Your task to perform on an android device: Turn off the flashlight Image 0: 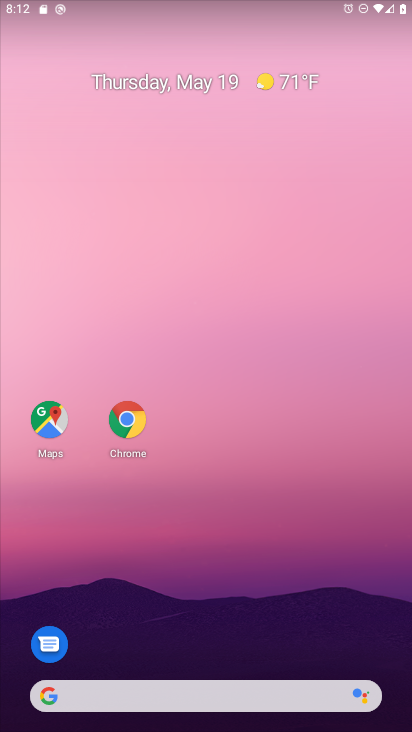
Step 0: drag from (244, 4) to (300, 547)
Your task to perform on an android device: Turn off the flashlight Image 1: 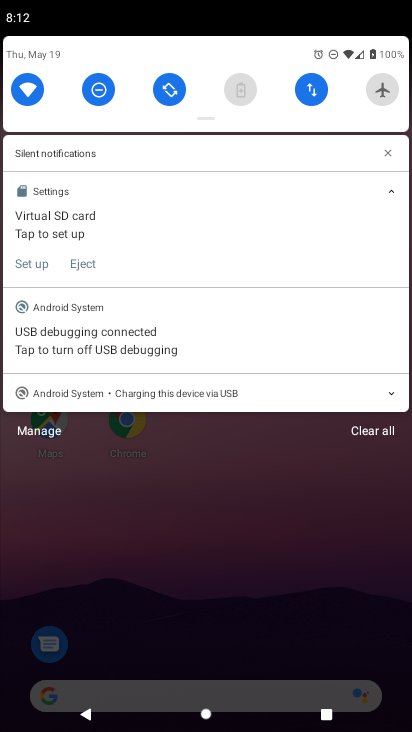
Step 1: drag from (186, 94) to (188, 592)
Your task to perform on an android device: Turn off the flashlight Image 2: 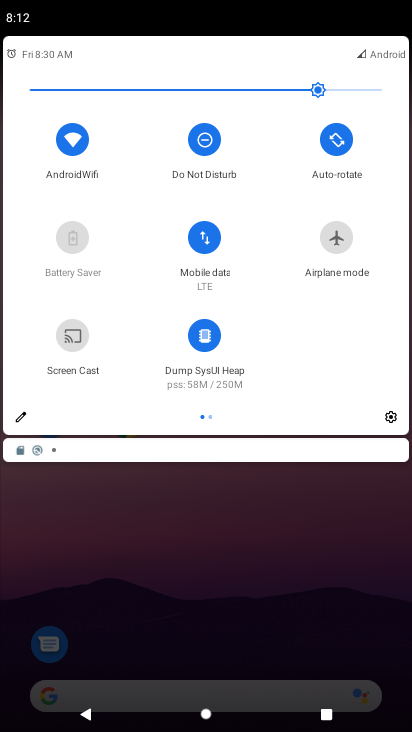
Step 2: drag from (309, 379) to (0, 429)
Your task to perform on an android device: Turn off the flashlight Image 3: 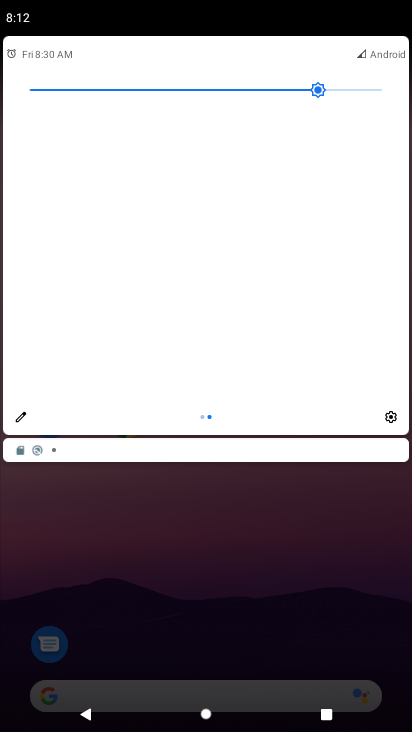
Step 3: click (16, 417)
Your task to perform on an android device: Turn off the flashlight Image 4: 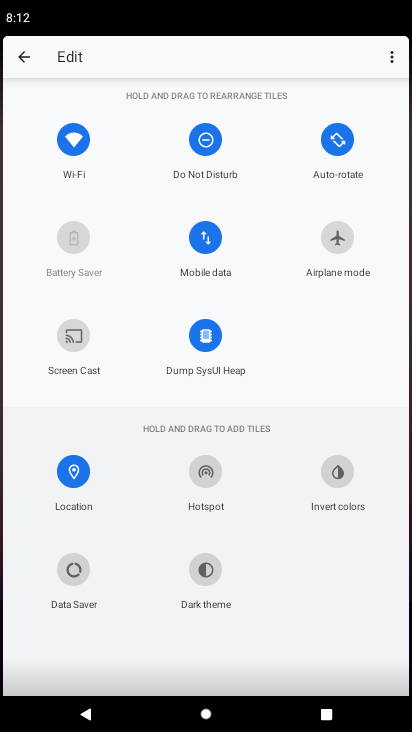
Step 4: task complete